Your task to perform on an android device: find which apps use the phone's location Image 0: 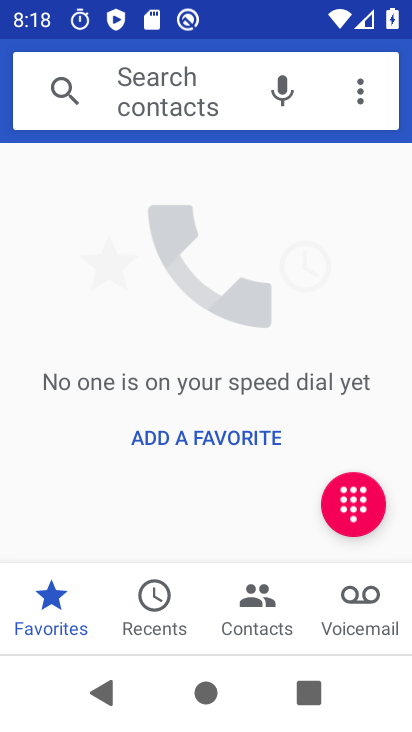
Step 0: press back button
Your task to perform on an android device: find which apps use the phone's location Image 1: 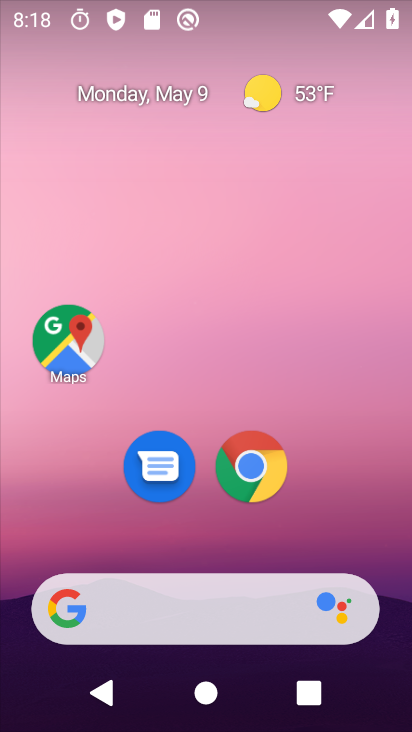
Step 1: drag from (338, 523) to (263, 60)
Your task to perform on an android device: find which apps use the phone's location Image 2: 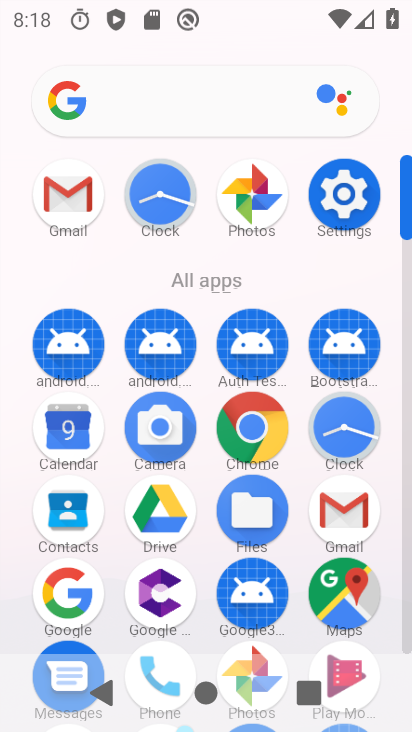
Step 2: click (343, 194)
Your task to perform on an android device: find which apps use the phone's location Image 3: 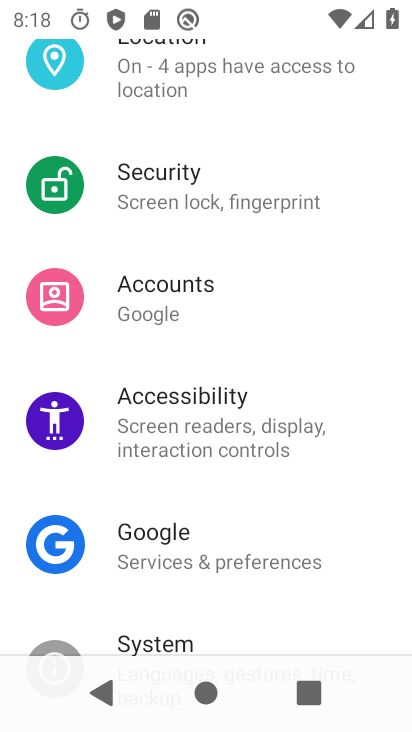
Step 3: drag from (182, 336) to (175, 438)
Your task to perform on an android device: find which apps use the phone's location Image 4: 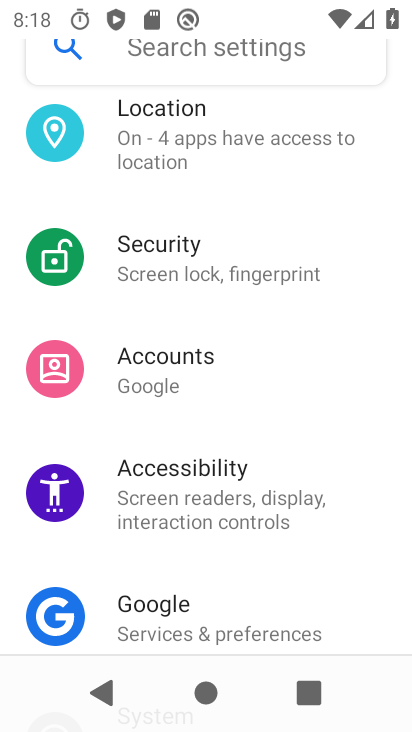
Step 4: drag from (221, 331) to (226, 447)
Your task to perform on an android device: find which apps use the phone's location Image 5: 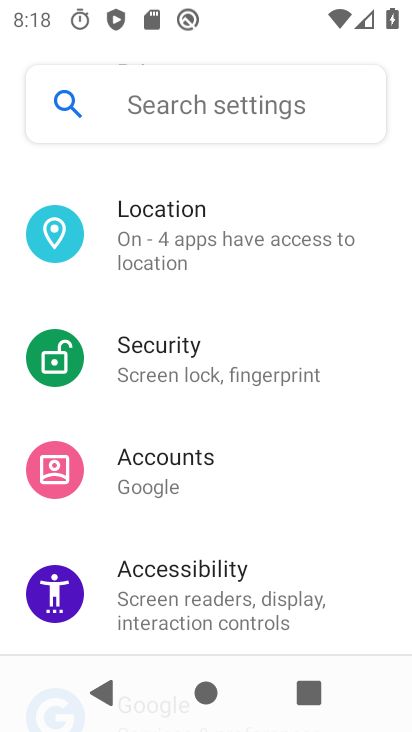
Step 5: click (173, 212)
Your task to perform on an android device: find which apps use the phone's location Image 6: 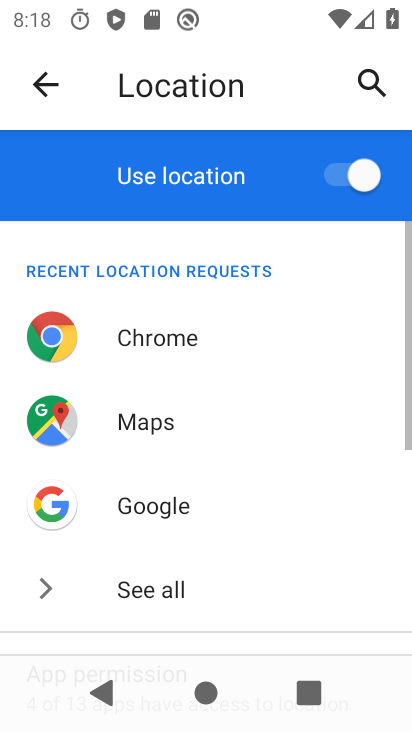
Step 6: drag from (223, 580) to (268, 422)
Your task to perform on an android device: find which apps use the phone's location Image 7: 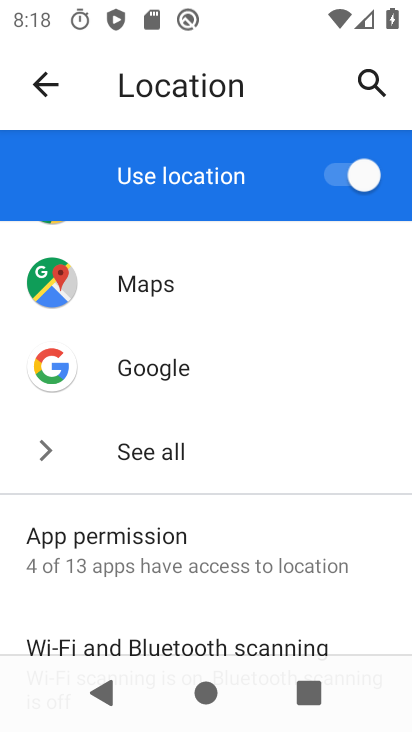
Step 7: drag from (212, 554) to (259, 461)
Your task to perform on an android device: find which apps use the phone's location Image 8: 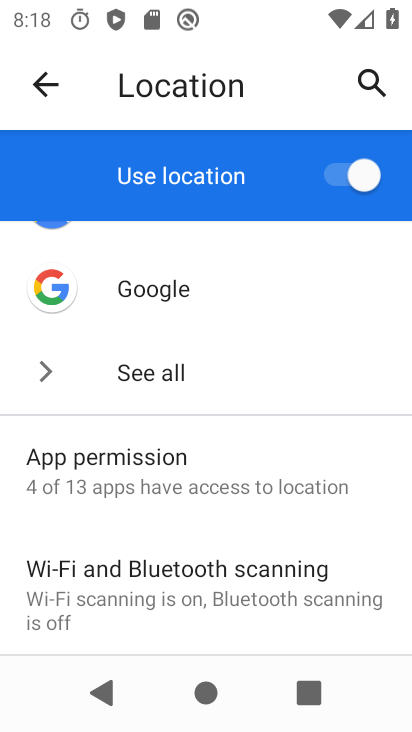
Step 8: click (165, 486)
Your task to perform on an android device: find which apps use the phone's location Image 9: 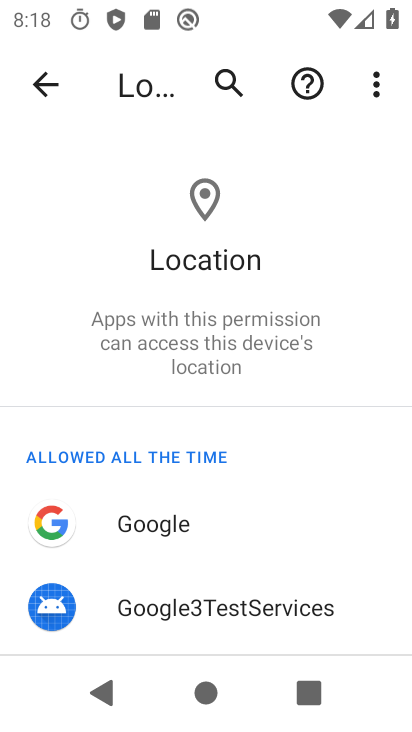
Step 9: drag from (201, 555) to (244, 404)
Your task to perform on an android device: find which apps use the phone's location Image 10: 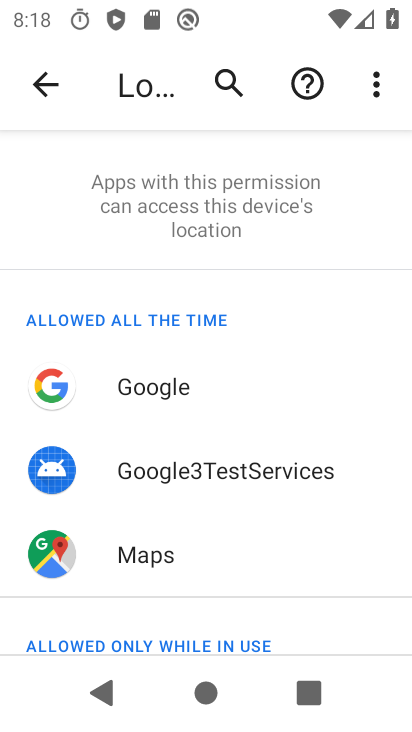
Step 10: click (147, 555)
Your task to perform on an android device: find which apps use the phone's location Image 11: 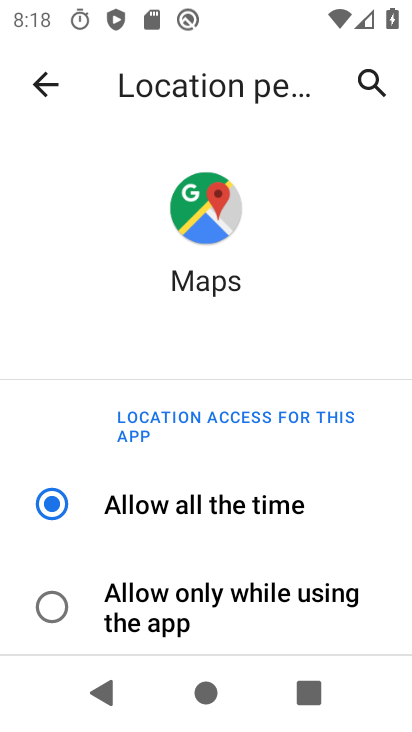
Step 11: task complete